Your task to perform on an android device: Go to ESPN.com Image 0: 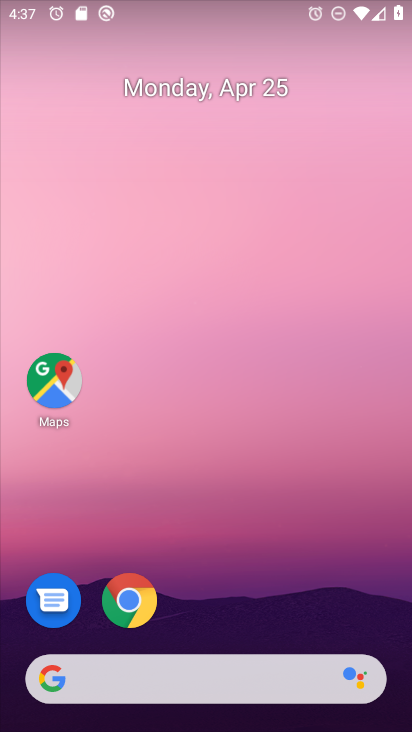
Step 0: drag from (193, 547) to (187, 42)
Your task to perform on an android device: Go to ESPN.com Image 1: 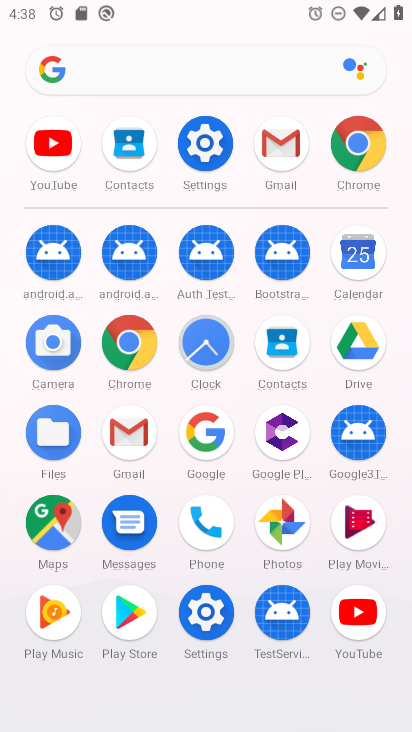
Step 1: click (132, 345)
Your task to perform on an android device: Go to ESPN.com Image 2: 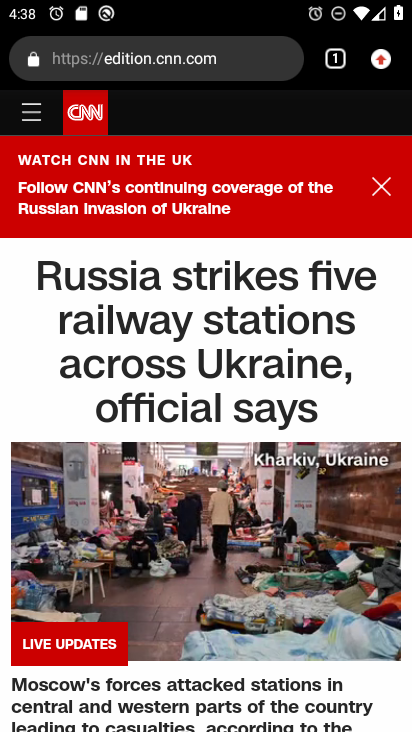
Step 2: click (181, 53)
Your task to perform on an android device: Go to ESPN.com Image 3: 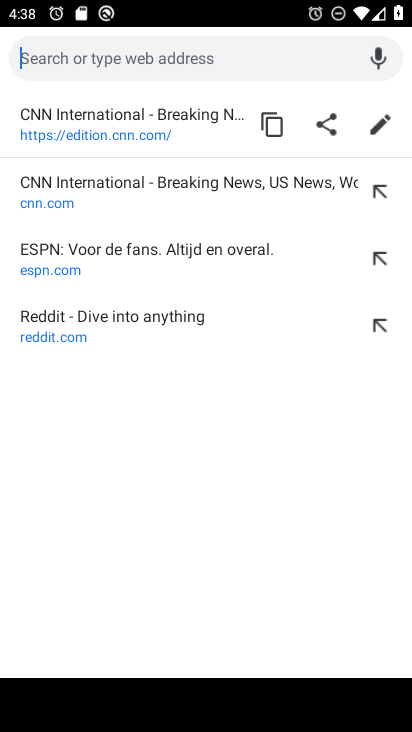
Step 3: type "ESPN.com"
Your task to perform on an android device: Go to ESPN.com Image 4: 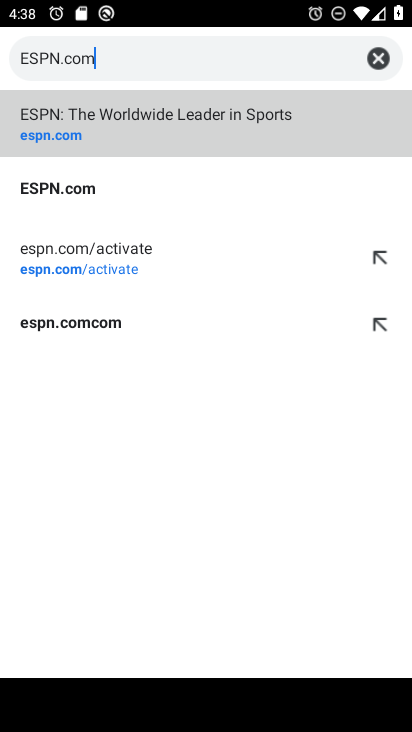
Step 4: click (158, 110)
Your task to perform on an android device: Go to ESPN.com Image 5: 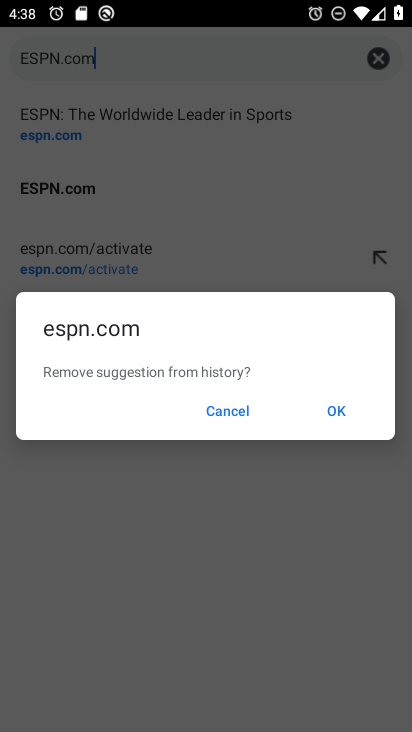
Step 5: click (247, 415)
Your task to perform on an android device: Go to ESPN.com Image 6: 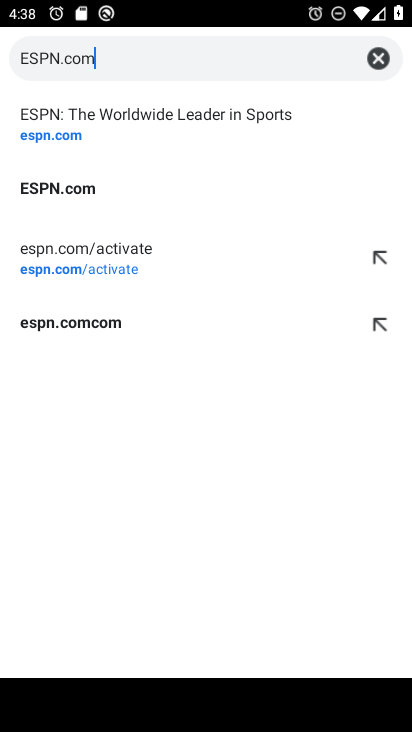
Step 6: click (132, 132)
Your task to perform on an android device: Go to ESPN.com Image 7: 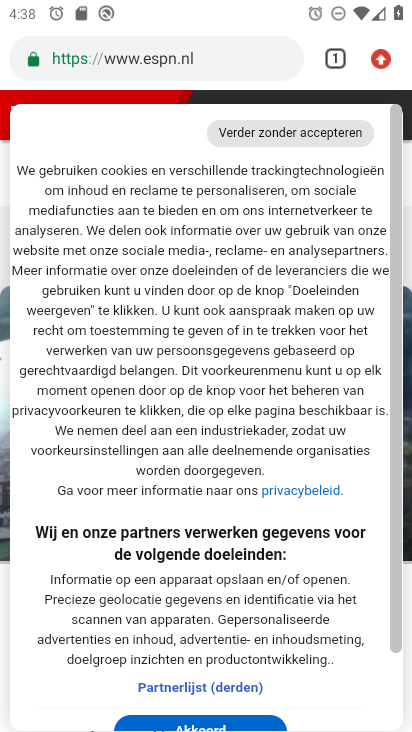
Step 7: task complete